Your task to perform on an android device: change notification settings in the gmail app Image 0: 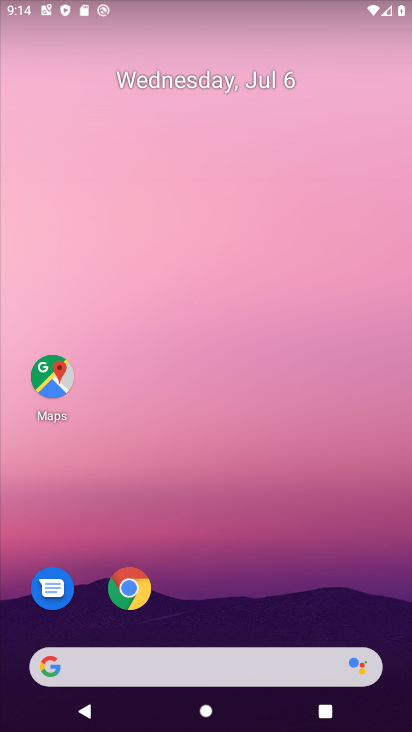
Step 0: drag from (203, 655) to (345, 42)
Your task to perform on an android device: change notification settings in the gmail app Image 1: 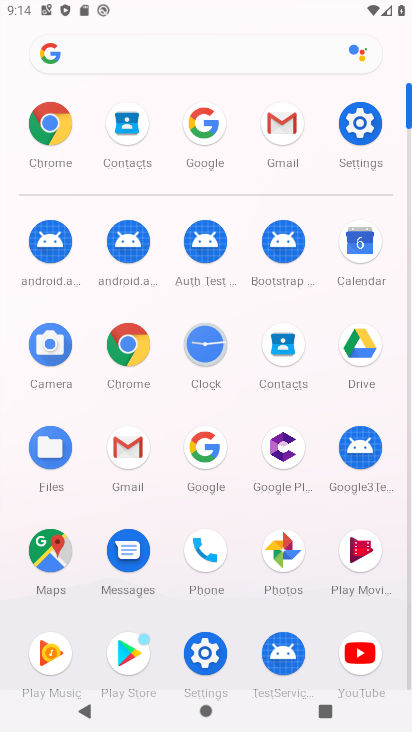
Step 1: click (286, 129)
Your task to perform on an android device: change notification settings in the gmail app Image 2: 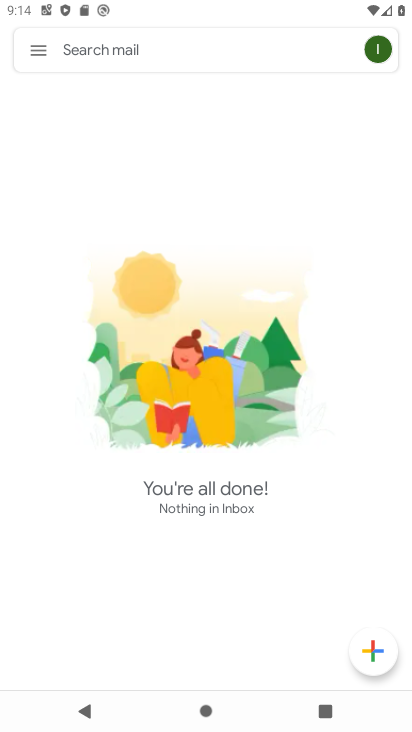
Step 2: click (28, 50)
Your task to perform on an android device: change notification settings in the gmail app Image 3: 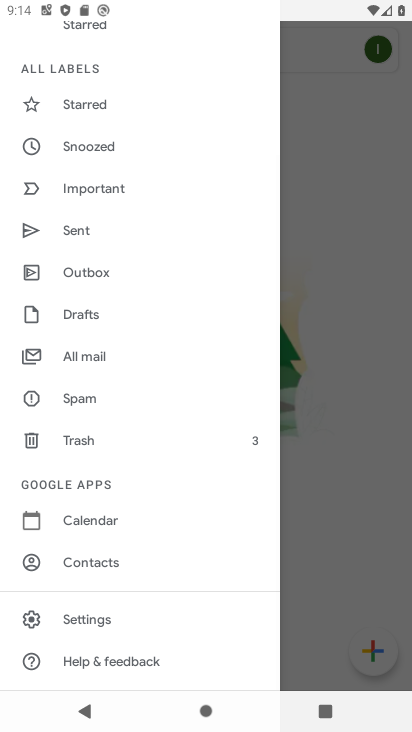
Step 3: click (95, 621)
Your task to perform on an android device: change notification settings in the gmail app Image 4: 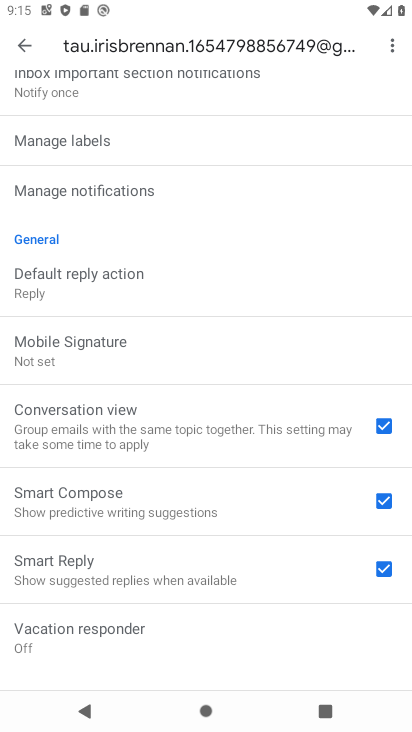
Step 4: drag from (248, 208) to (297, 528)
Your task to perform on an android device: change notification settings in the gmail app Image 5: 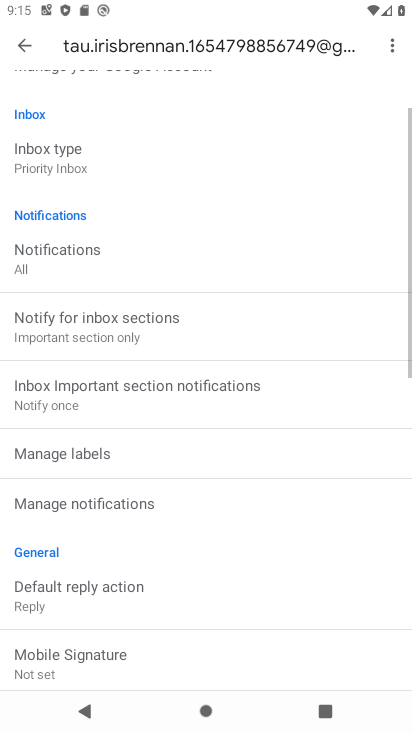
Step 5: click (109, 261)
Your task to perform on an android device: change notification settings in the gmail app Image 6: 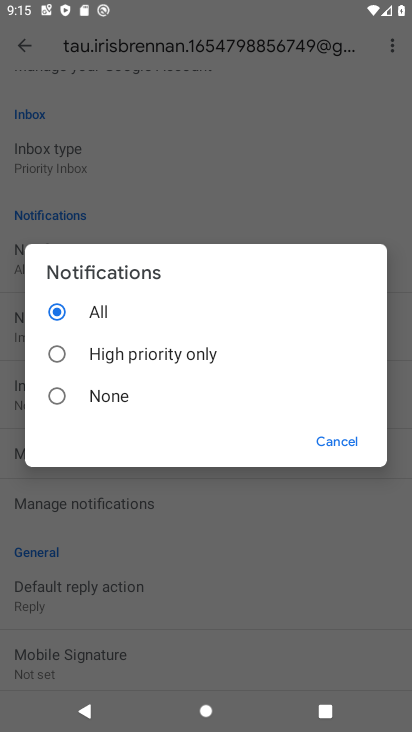
Step 6: click (61, 352)
Your task to perform on an android device: change notification settings in the gmail app Image 7: 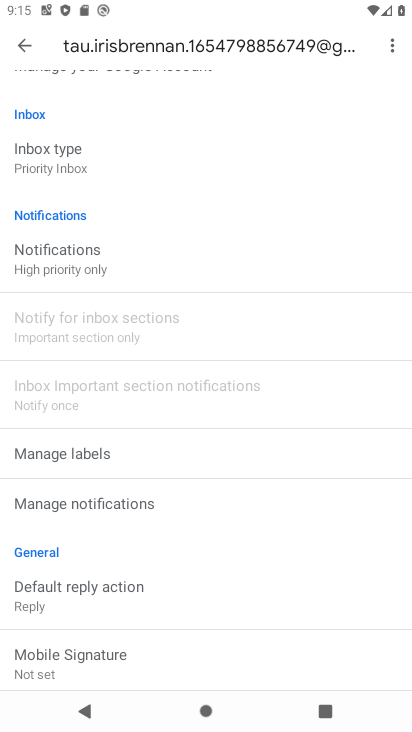
Step 7: task complete